Your task to perform on an android device: Search for Italian restaurants on Maps Image 0: 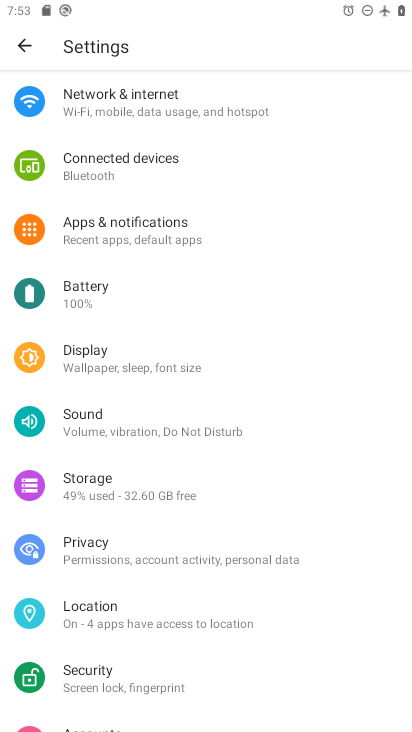
Step 0: press home button
Your task to perform on an android device: Search for Italian restaurants on Maps Image 1: 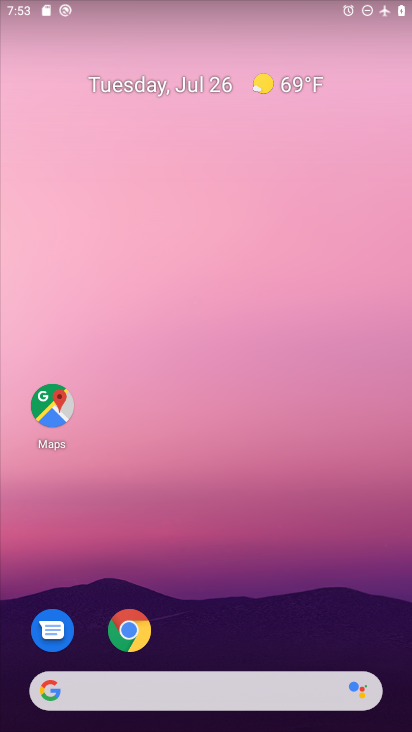
Step 1: drag from (241, 652) to (236, 190)
Your task to perform on an android device: Search for Italian restaurants on Maps Image 2: 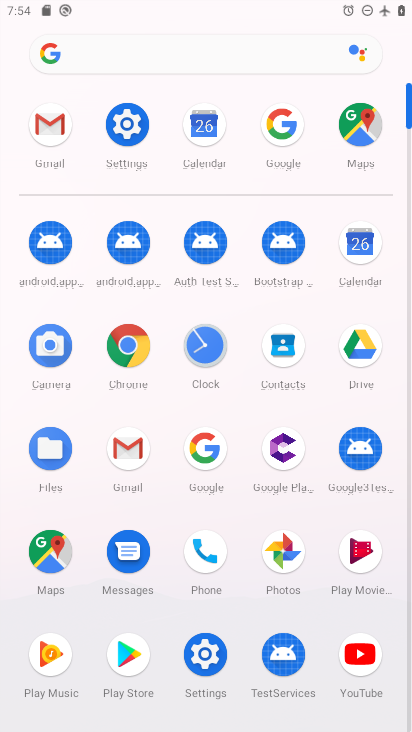
Step 2: click (51, 551)
Your task to perform on an android device: Search for Italian restaurants on Maps Image 3: 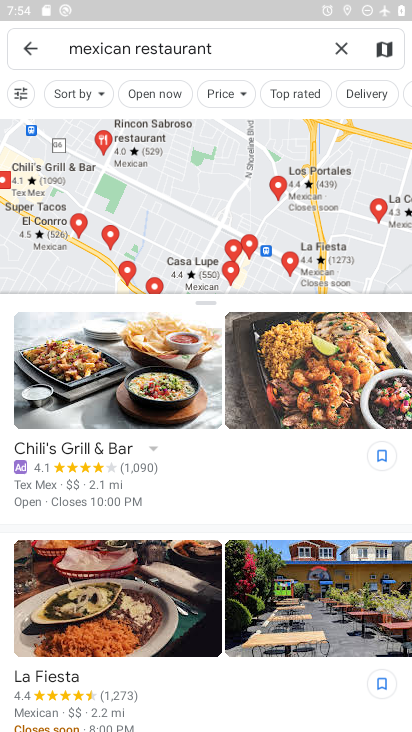
Step 3: click (338, 48)
Your task to perform on an android device: Search for Italian restaurants on Maps Image 4: 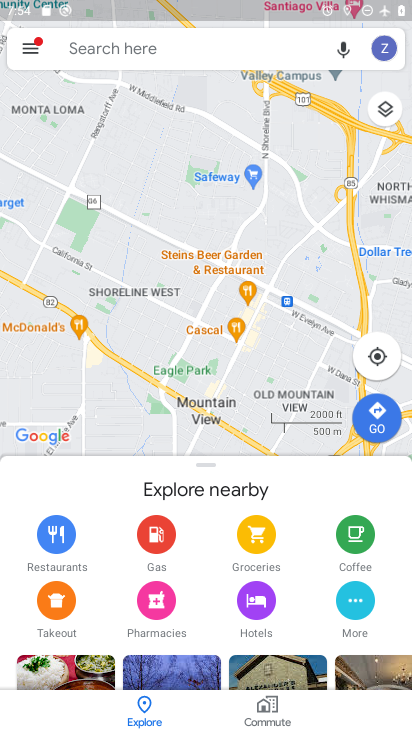
Step 4: click (216, 59)
Your task to perform on an android device: Search for Italian restaurants on Maps Image 5: 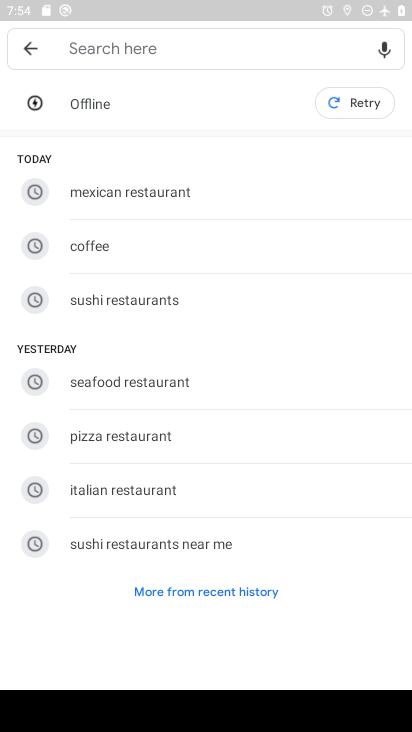
Step 5: click (153, 489)
Your task to perform on an android device: Search for Italian restaurants on Maps Image 6: 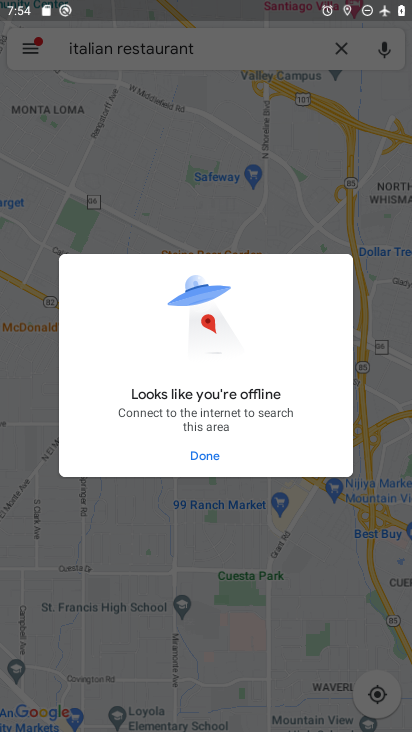
Step 6: click (220, 455)
Your task to perform on an android device: Search for Italian restaurants on Maps Image 7: 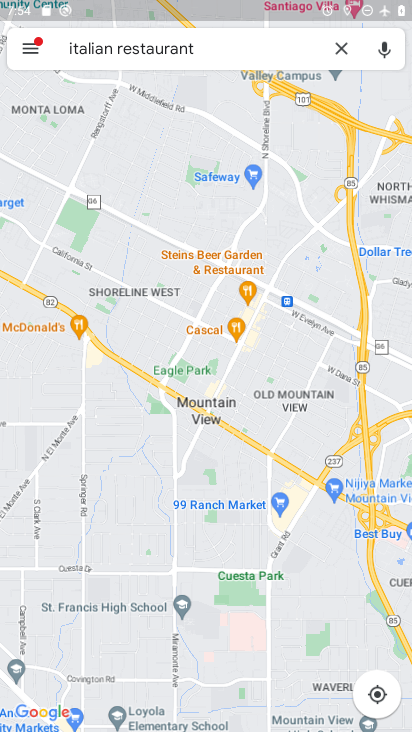
Step 7: task complete